Your task to perform on an android device: Go to eBay Image 0: 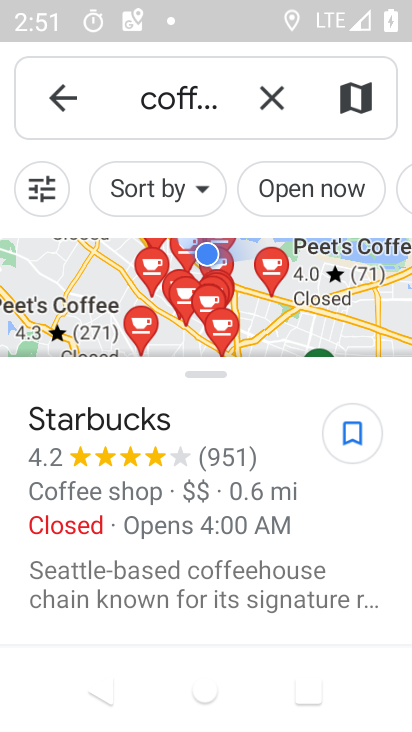
Step 0: press home button
Your task to perform on an android device: Go to eBay Image 1: 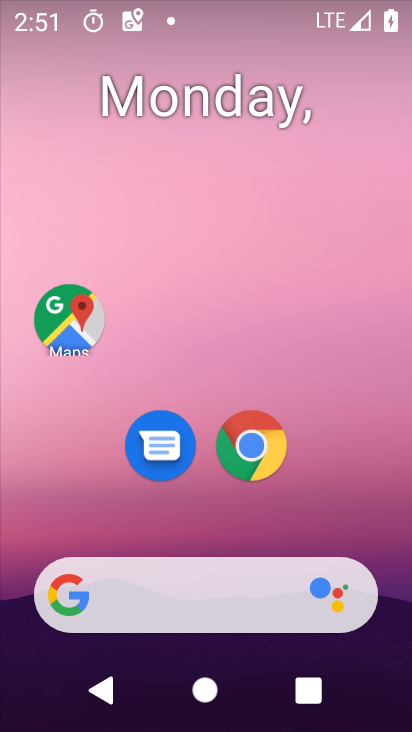
Step 1: click (265, 446)
Your task to perform on an android device: Go to eBay Image 2: 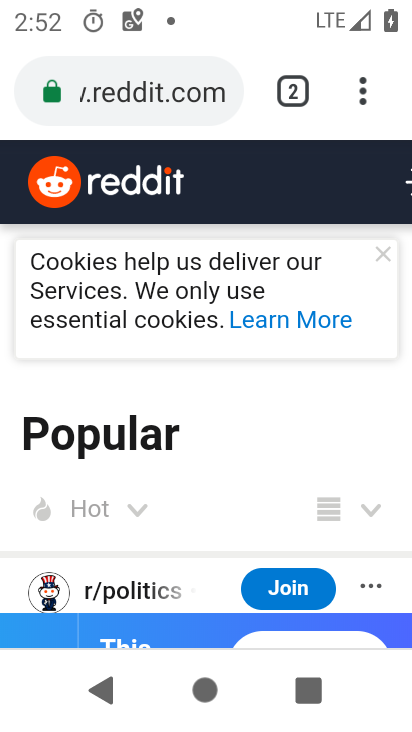
Step 2: click (155, 87)
Your task to perform on an android device: Go to eBay Image 3: 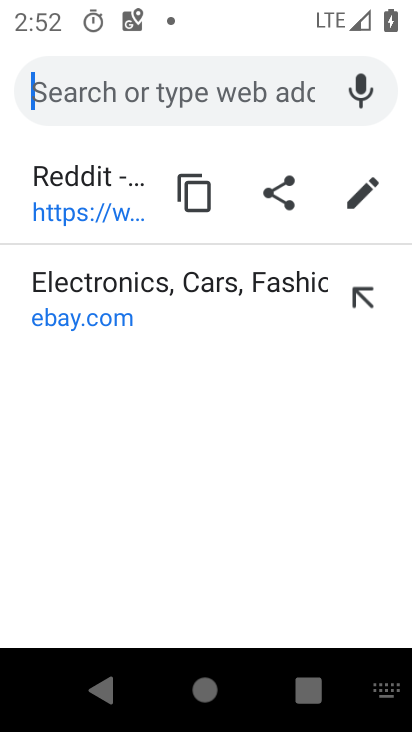
Step 3: click (171, 272)
Your task to perform on an android device: Go to eBay Image 4: 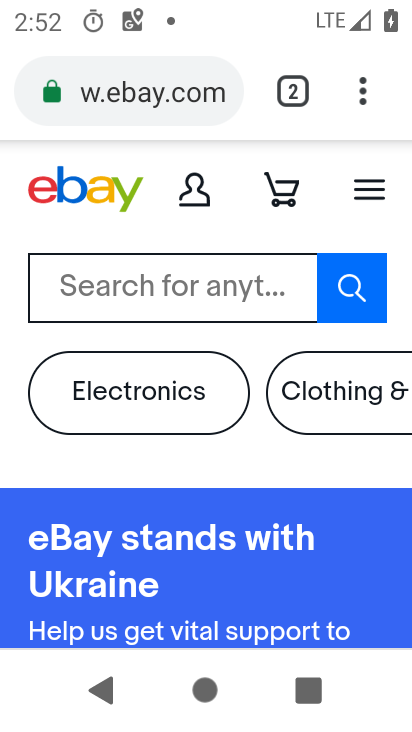
Step 4: task complete